Your task to perform on an android device: set an alarm Image 0: 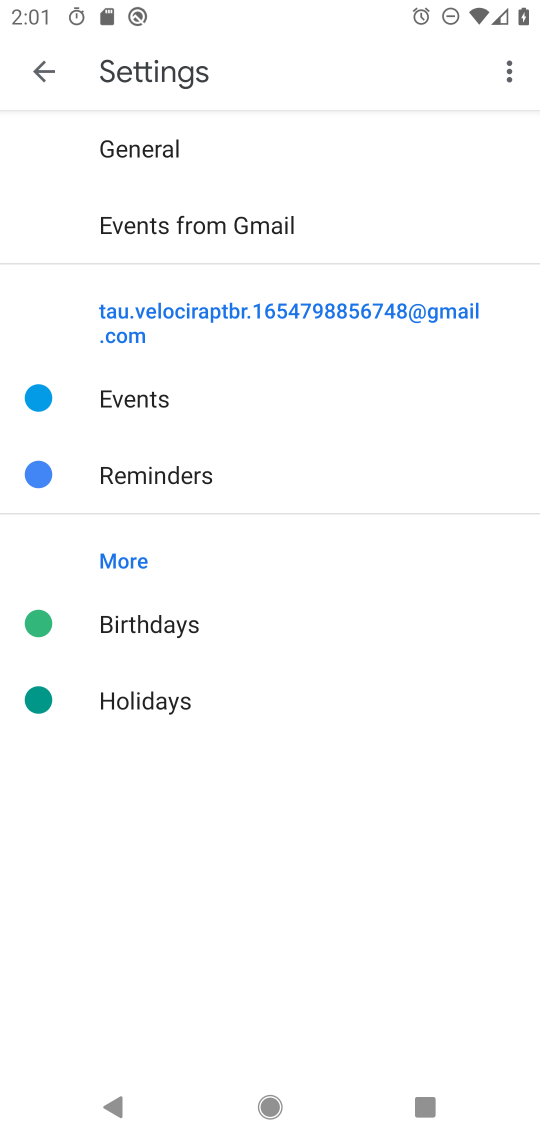
Step 0: press home button
Your task to perform on an android device: set an alarm Image 1: 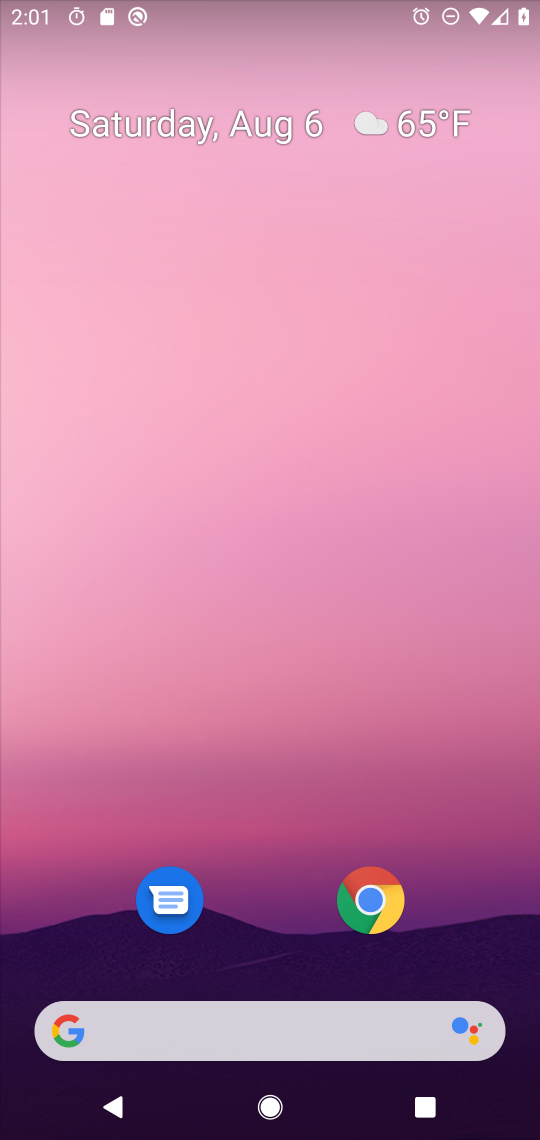
Step 1: drag from (275, 637) to (257, 195)
Your task to perform on an android device: set an alarm Image 2: 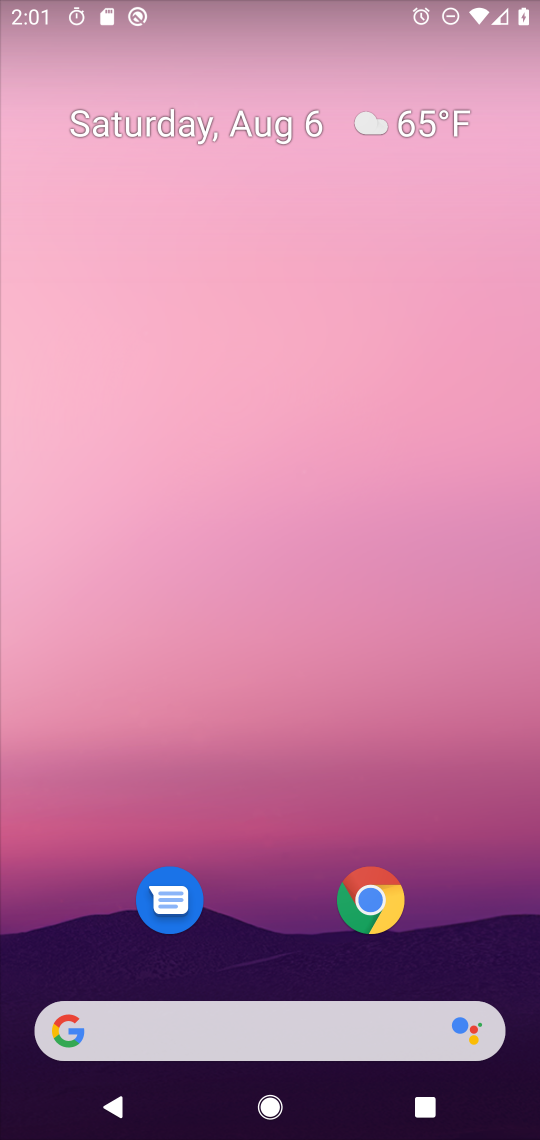
Step 2: drag from (264, 915) to (268, 14)
Your task to perform on an android device: set an alarm Image 3: 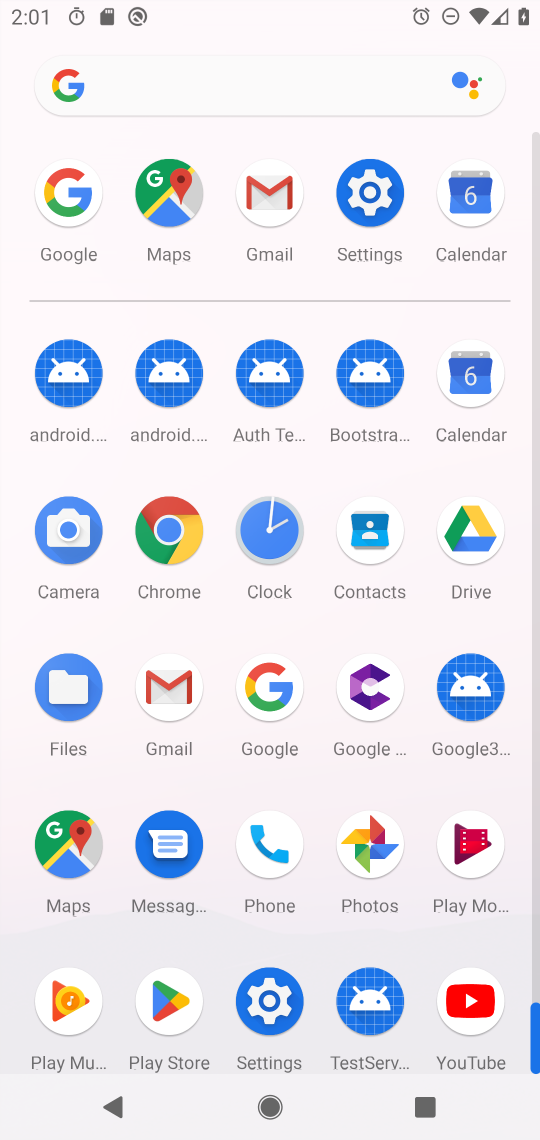
Step 3: click (267, 538)
Your task to perform on an android device: set an alarm Image 4: 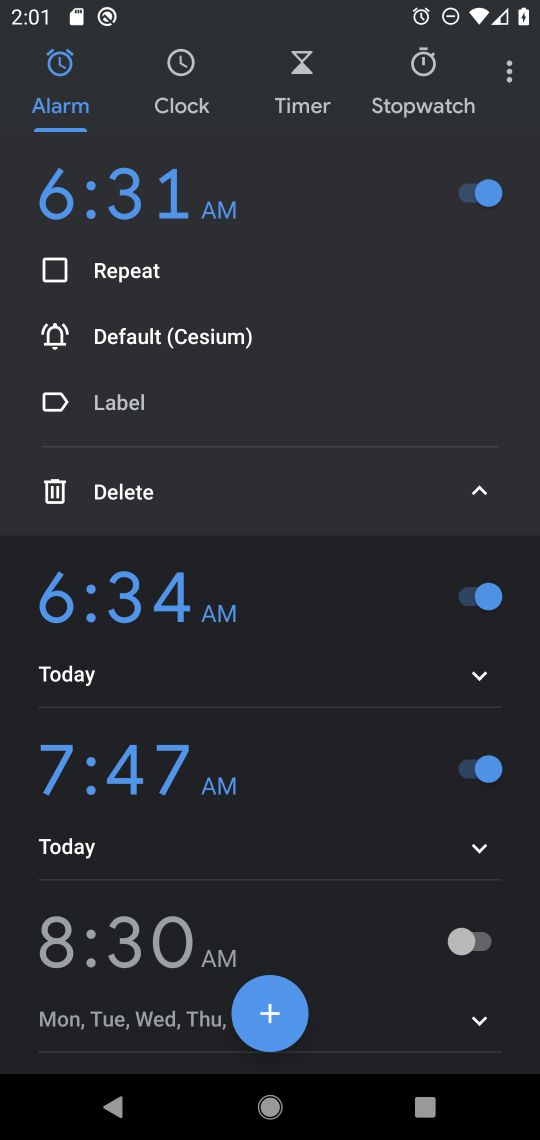
Step 4: click (279, 1021)
Your task to perform on an android device: set an alarm Image 5: 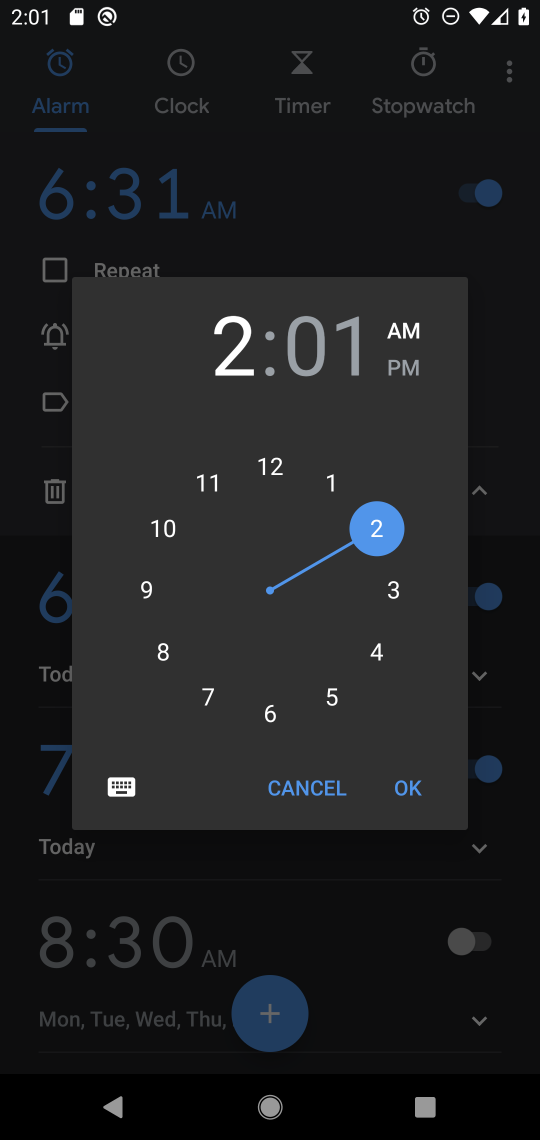
Step 5: click (268, 703)
Your task to perform on an android device: set an alarm Image 6: 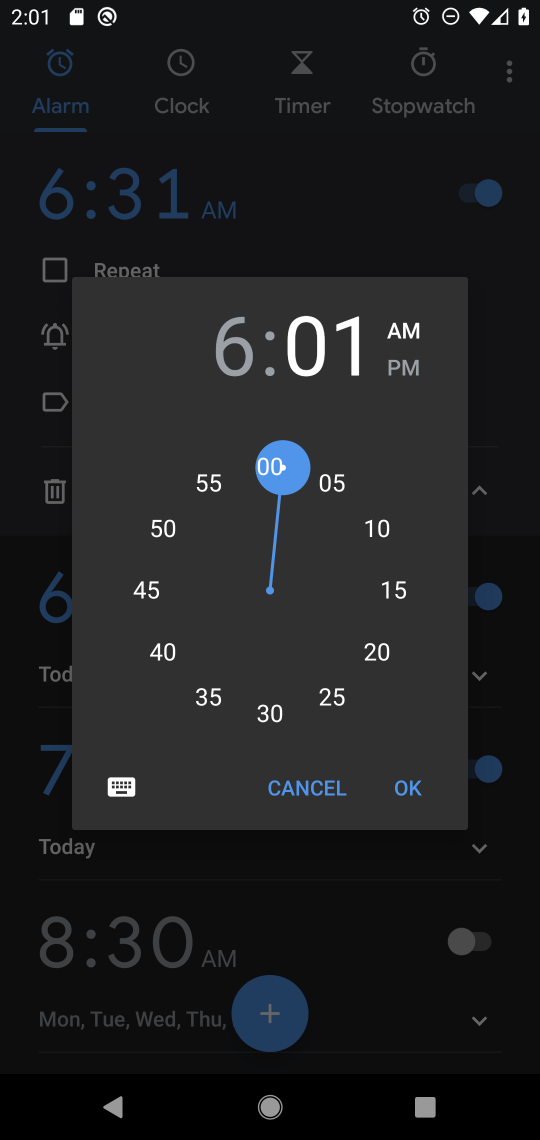
Step 6: click (407, 787)
Your task to perform on an android device: set an alarm Image 7: 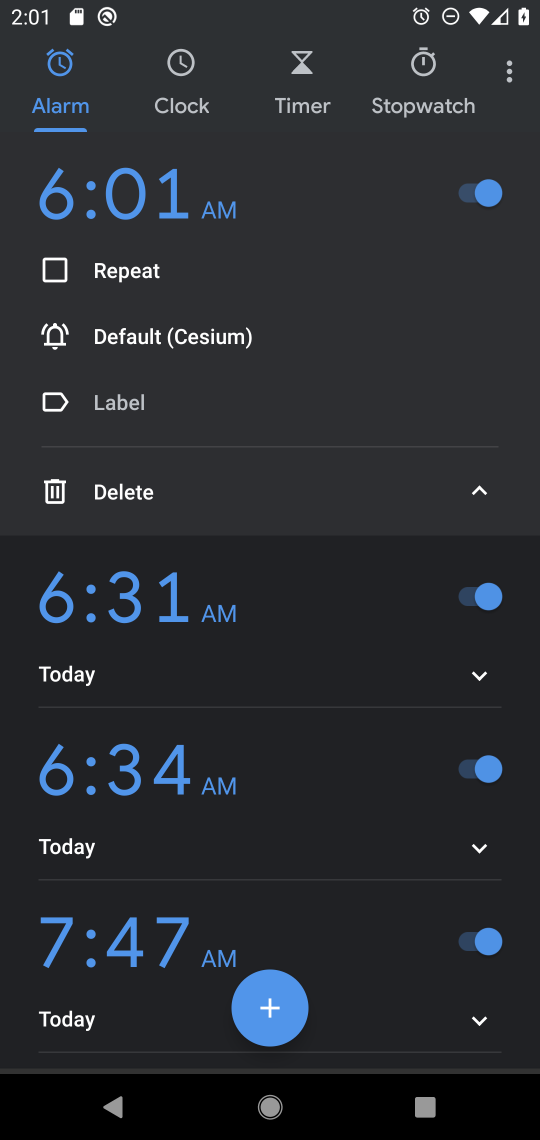
Step 7: task complete